Your task to perform on an android device: turn on data saver in the chrome app Image 0: 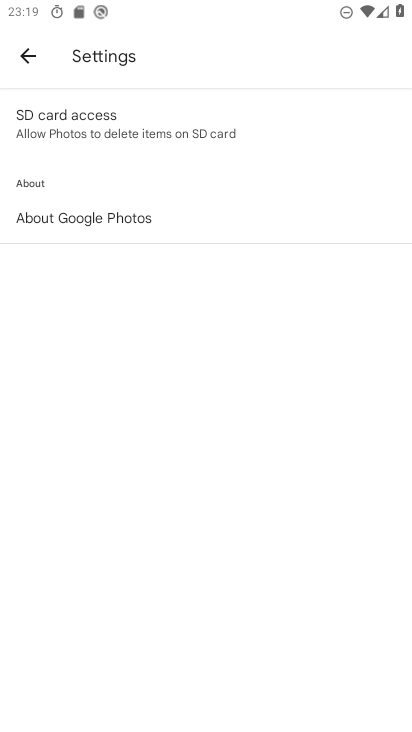
Step 0: press home button
Your task to perform on an android device: turn on data saver in the chrome app Image 1: 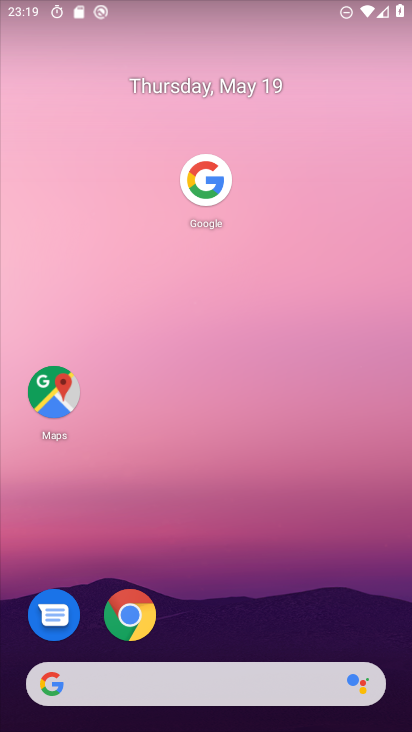
Step 1: click (138, 618)
Your task to perform on an android device: turn on data saver in the chrome app Image 2: 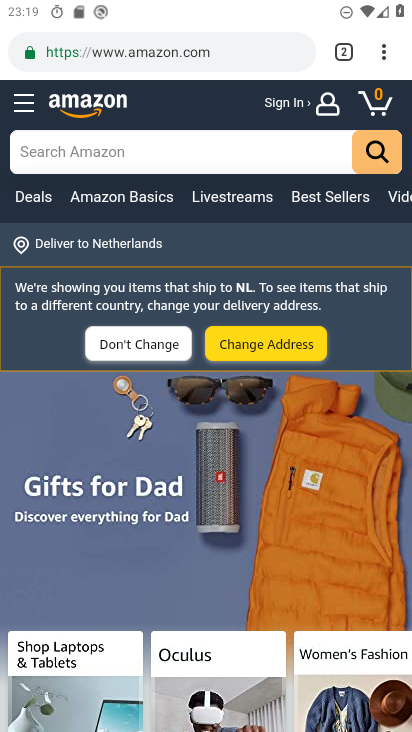
Step 2: click (374, 48)
Your task to perform on an android device: turn on data saver in the chrome app Image 3: 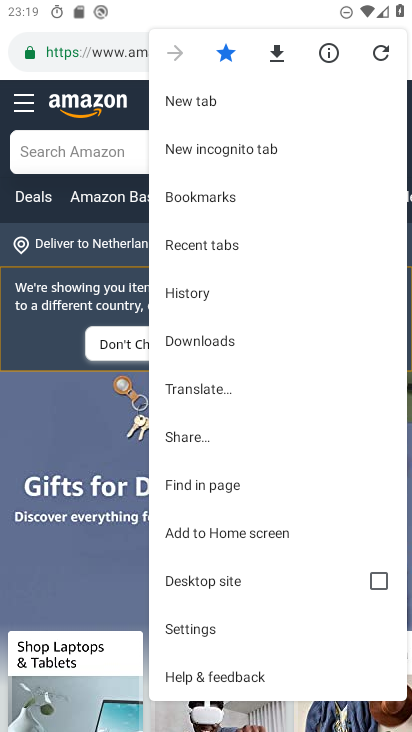
Step 3: click (232, 631)
Your task to perform on an android device: turn on data saver in the chrome app Image 4: 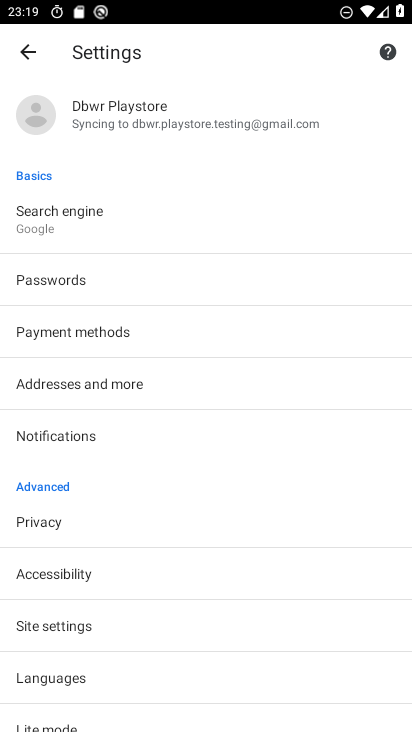
Step 4: click (101, 730)
Your task to perform on an android device: turn on data saver in the chrome app Image 5: 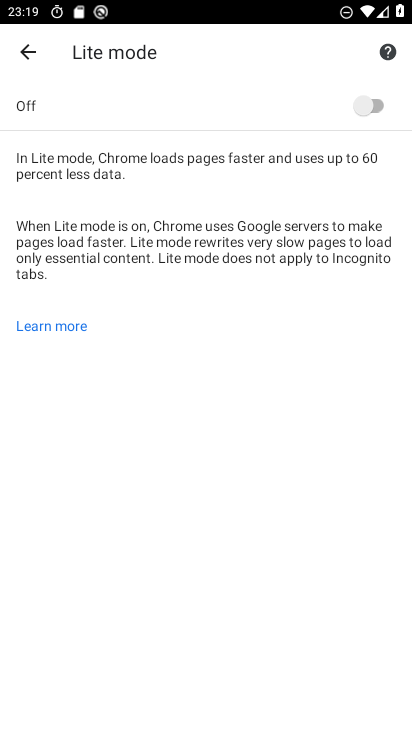
Step 5: click (370, 109)
Your task to perform on an android device: turn on data saver in the chrome app Image 6: 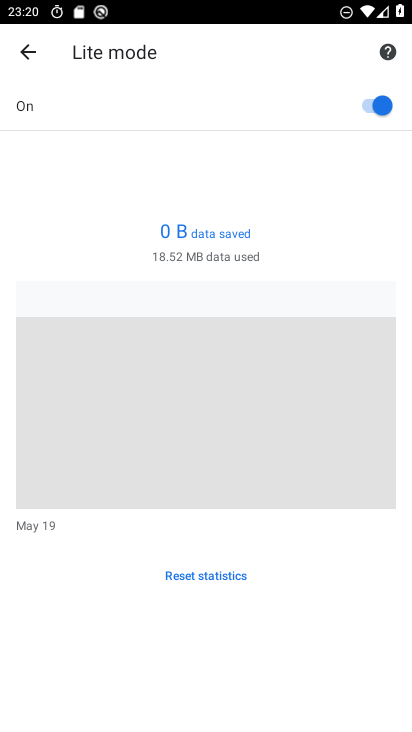
Step 6: task complete